Your task to perform on an android device: find which apps use the phone's location Image 0: 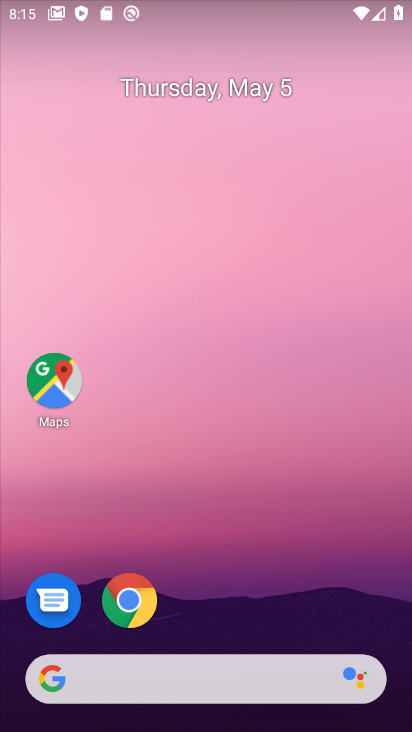
Step 0: drag from (327, 600) to (336, 41)
Your task to perform on an android device: find which apps use the phone's location Image 1: 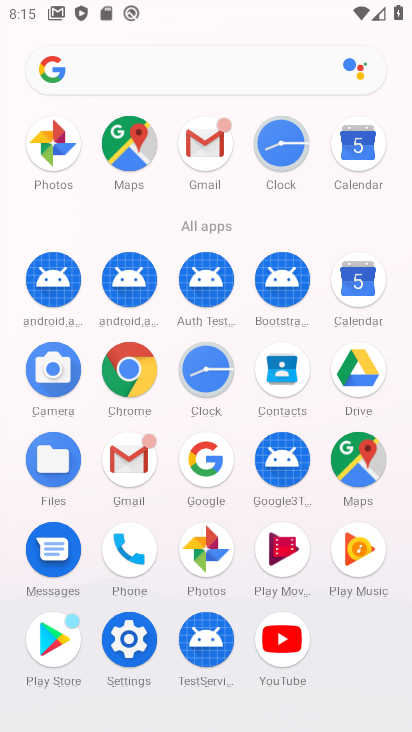
Step 1: click (127, 638)
Your task to perform on an android device: find which apps use the phone's location Image 2: 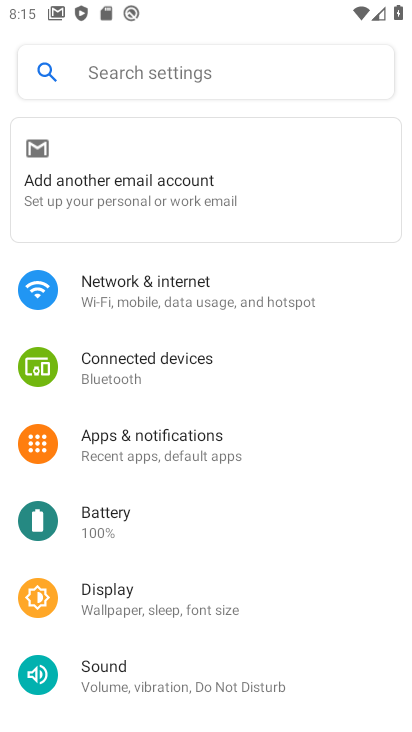
Step 2: drag from (294, 615) to (283, 253)
Your task to perform on an android device: find which apps use the phone's location Image 3: 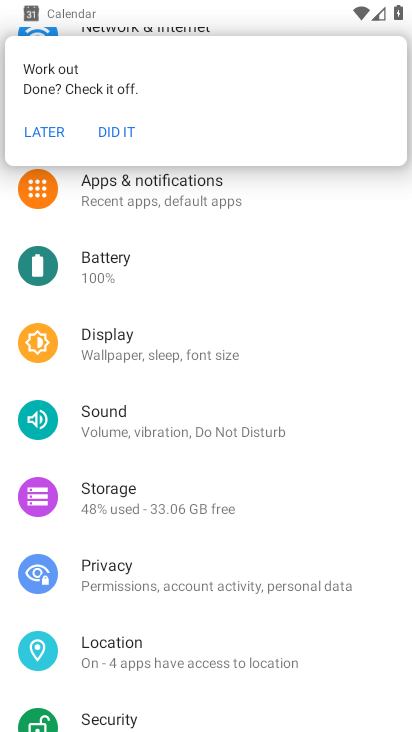
Step 3: click (120, 638)
Your task to perform on an android device: find which apps use the phone's location Image 4: 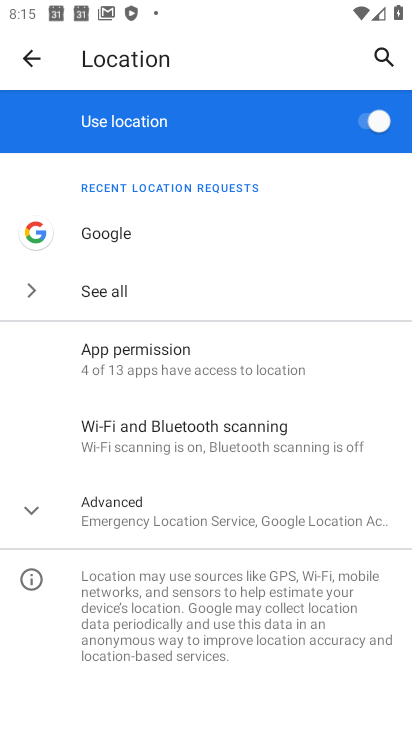
Step 4: click (133, 345)
Your task to perform on an android device: find which apps use the phone's location Image 5: 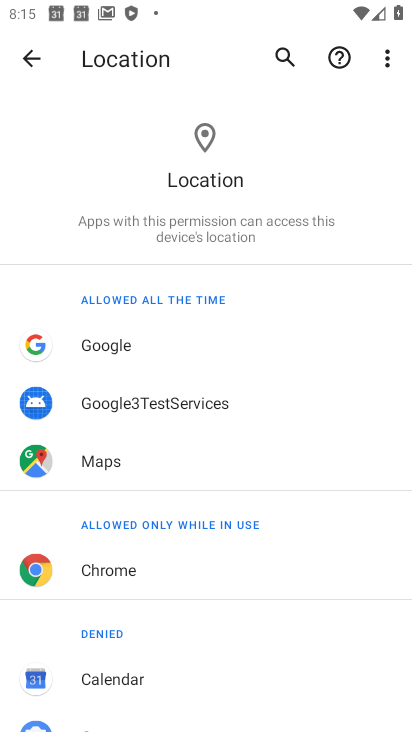
Step 5: drag from (263, 645) to (270, 183)
Your task to perform on an android device: find which apps use the phone's location Image 6: 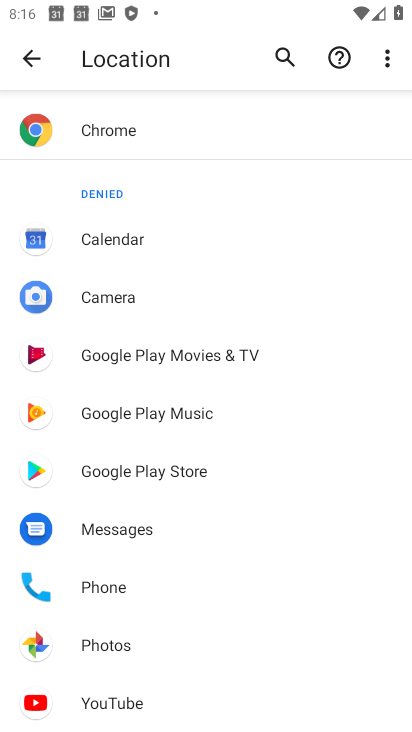
Step 6: click (89, 643)
Your task to perform on an android device: find which apps use the phone's location Image 7: 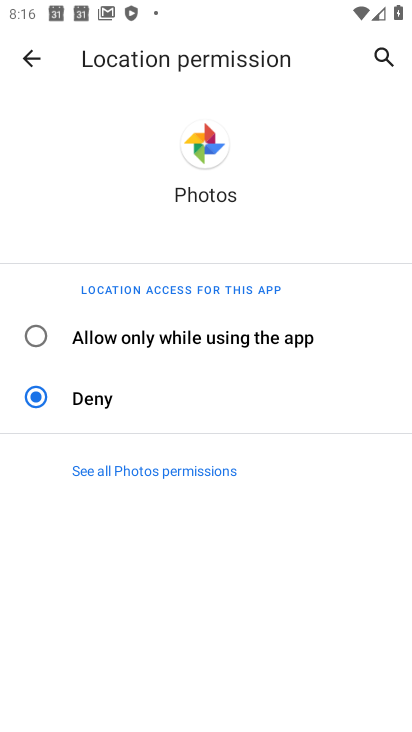
Step 7: task complete